Your task to perform on an android device: toggle priority inbox in the gmail app Image 0: 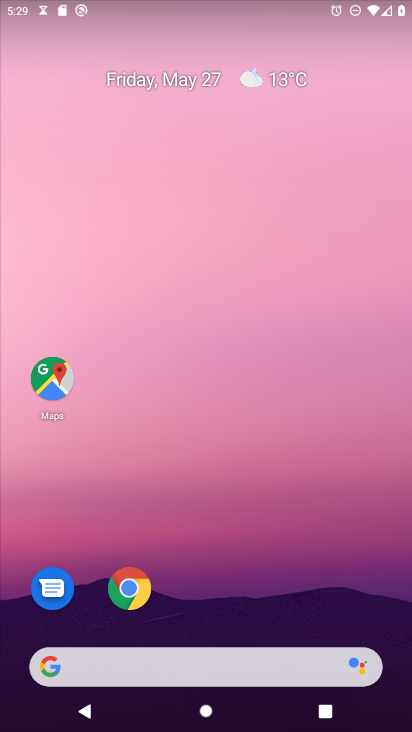
Step 0: drag from (210, 544) to (297, 78)
Your task to perform on an android device: toggle priority inbox in the gmail app Image 1: 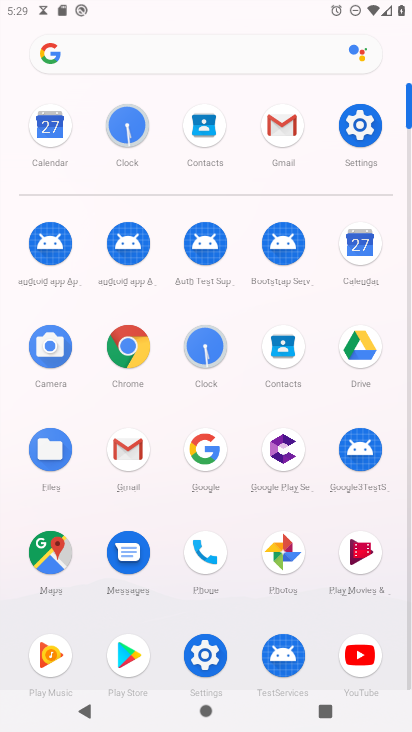
Step 1: click (278, 125)
Your task to perform on an android device: toggle priority inbox in the gmail app Image 2: 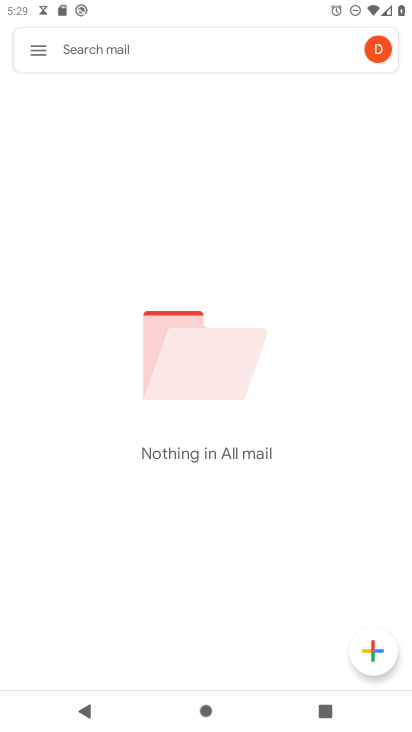
Step 2: click (30, 51)
Your task to perform on an android device: toggle priority inbox in the gmail app Image 3: 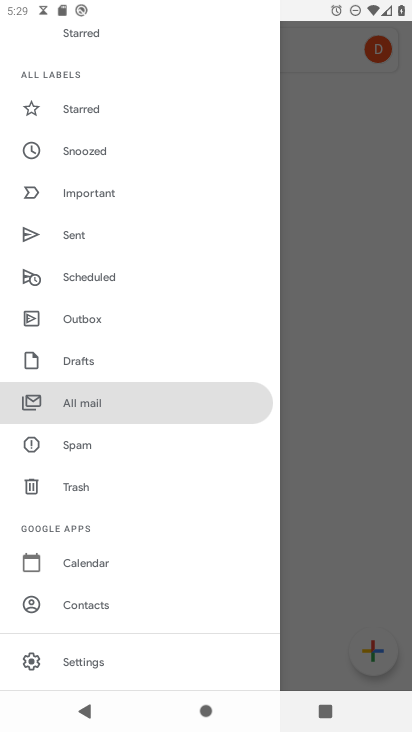
Step 3: click (85, 659)
Your task to perform on an android device: toggle priority inbox in the gmail app Image 4: 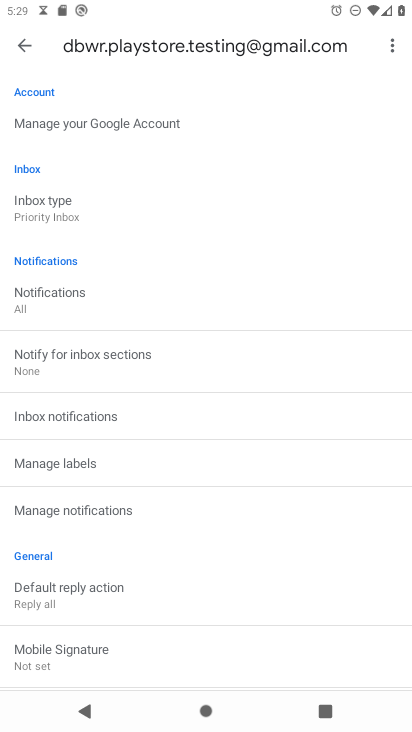
Step 4: click (48, 215)
Your task to perform on an android device: toggle priority inbox in the gmail app Image 5: 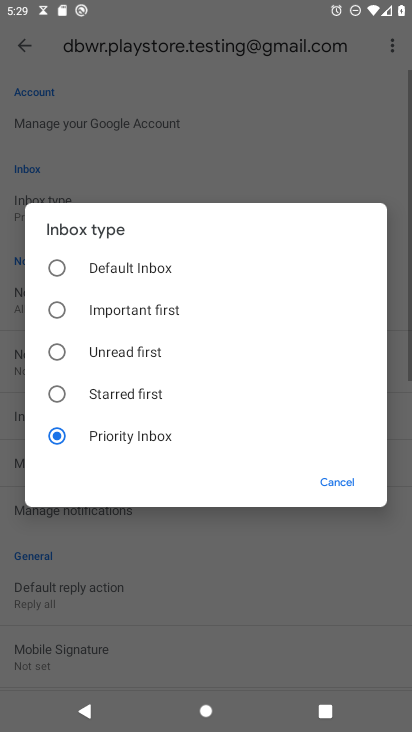
Step 5: click (64, 445)
Your task to perform on an android device: toggle priority inbox in the gmail app Image 6: 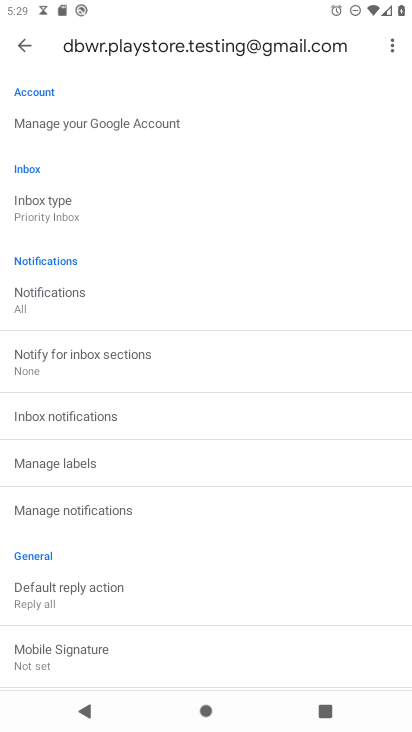
Step 6: task complete